Your task to perform on an android device: Open wifi settings Image 0: 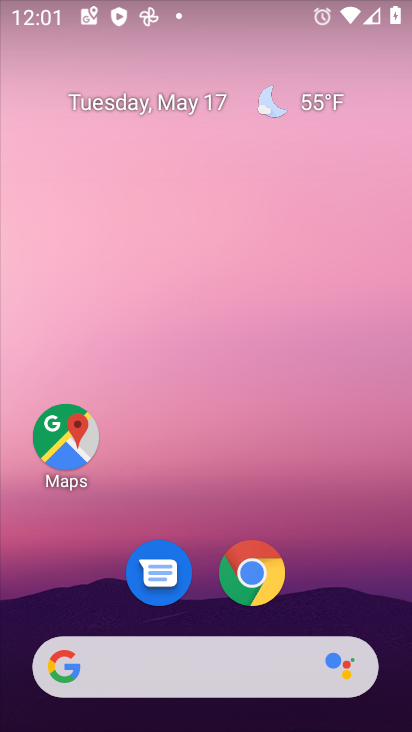
Step 0: drag from (311, 7) to (290, 625)
Your task to perform on an android device: Open wifi settings Image 1: 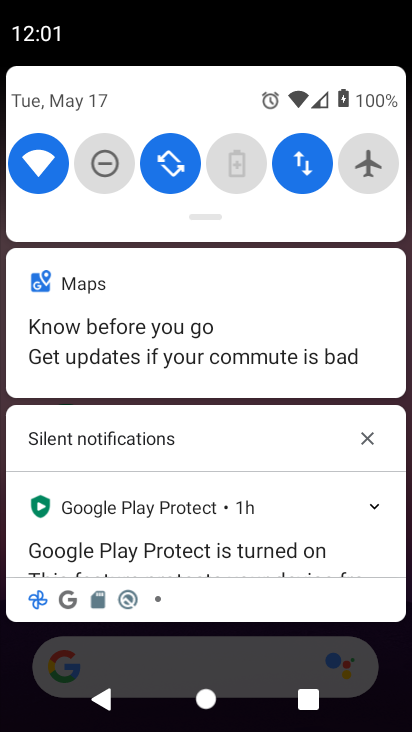
Step 1: click (48, 170)
Your task to perform on an android device: Open wifi settings Image 2: 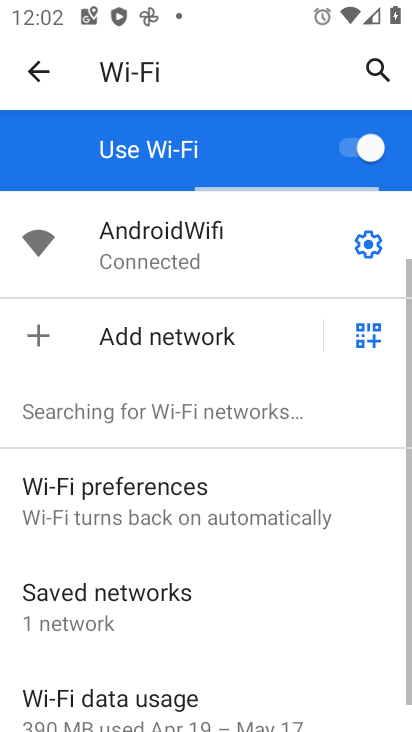
Step 2: task complete